Your task to perform on an android device: turn on location history Image 0: 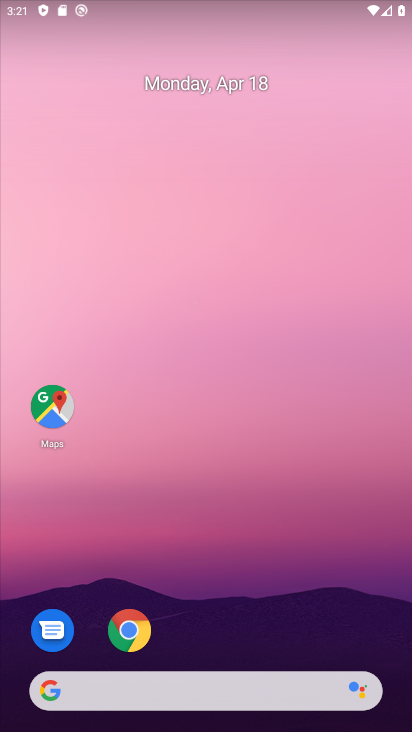
Step 0: drag from (164, 506) to (225, 103)
Your task to perform on an android device: turn on location history Image 1: 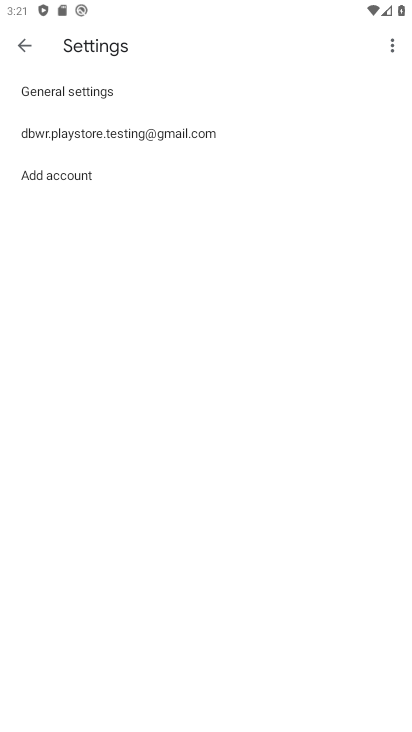
Step 1: press back button
Your task to perform on an android device: turn on location history Image 2: 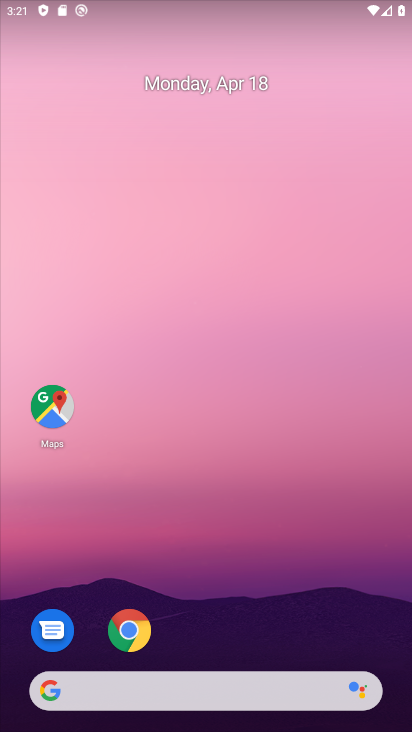
Step 2: drag from (183, 667) to (283, 152)
Your task to perform on an android device: turn on location history Image 3: 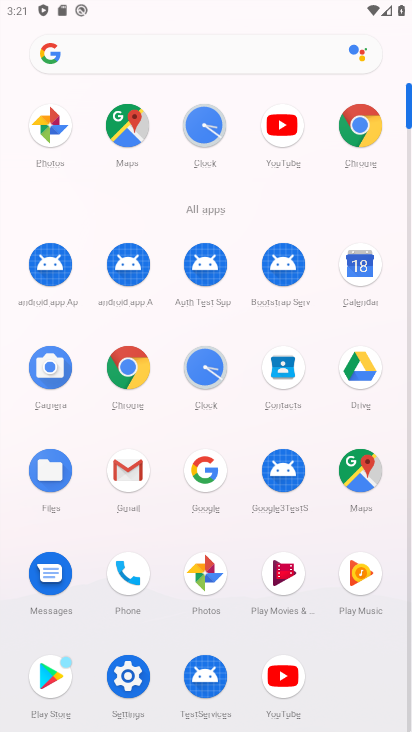
Step 3: click (127, 673)
Your task to perform on an android device: turn on location history Image 4: 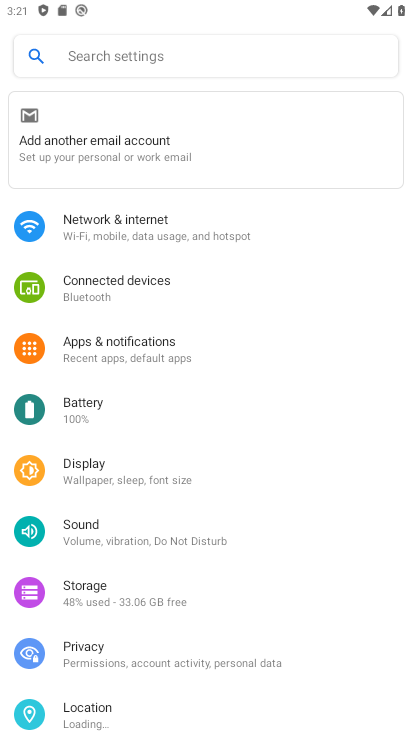
Step 4: drag from (150, 646) to (229, 469)
Your task to perform on an android device: turn on location history Image 5: 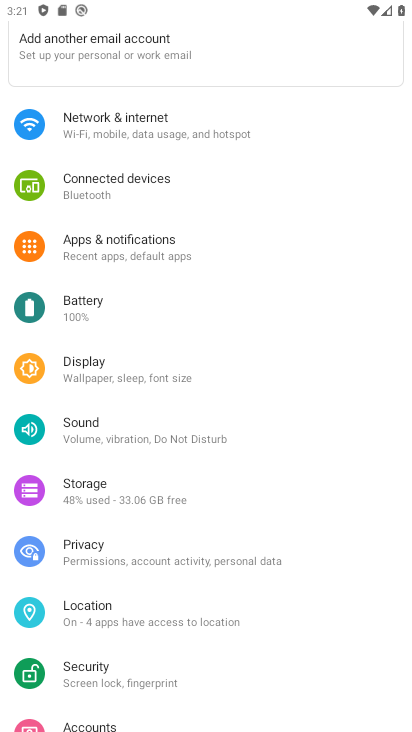
Step 5: click (137, 615)
Your task to perform on an android device: turn on location history Image 6: 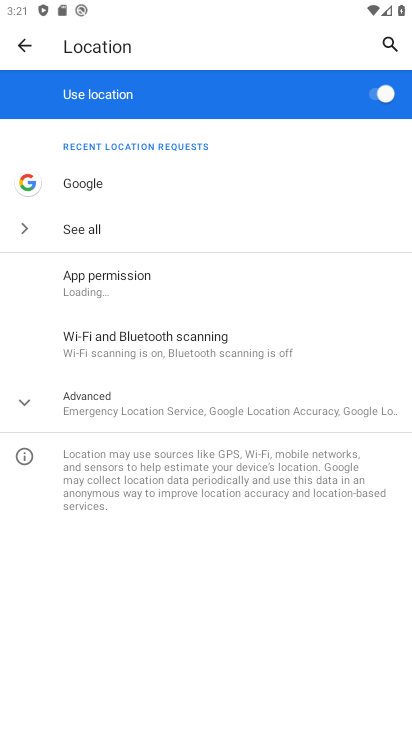
Step 6: click (138, 410)
Your task to perform on an android device: turn on location history Image 7: 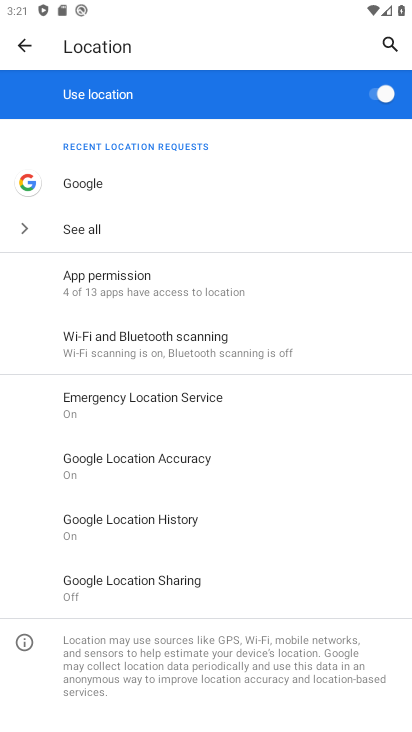
Step 7: click (176, 532)
Your task to perform on an android device: turn on location history Image 8: 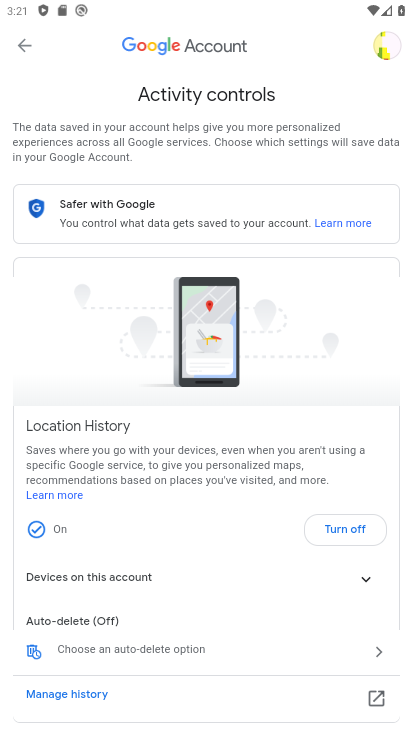
Step 8: task complete